Your task to perform on an android device: check battery use Image 0: 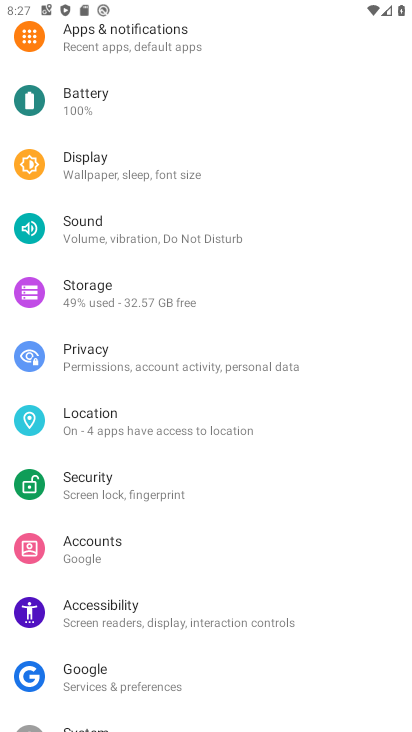
Step 0: click (84, 101)
Your task to perform on an android device: check battery use Image 1: 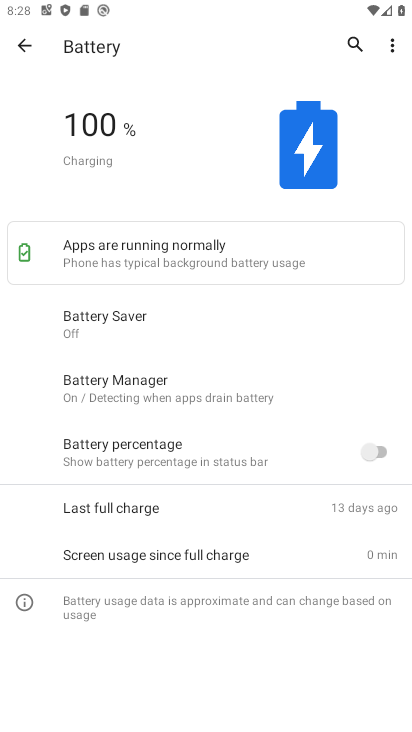
Step 1: task complete